Your task to perform on an android device: check google app version Image 0: 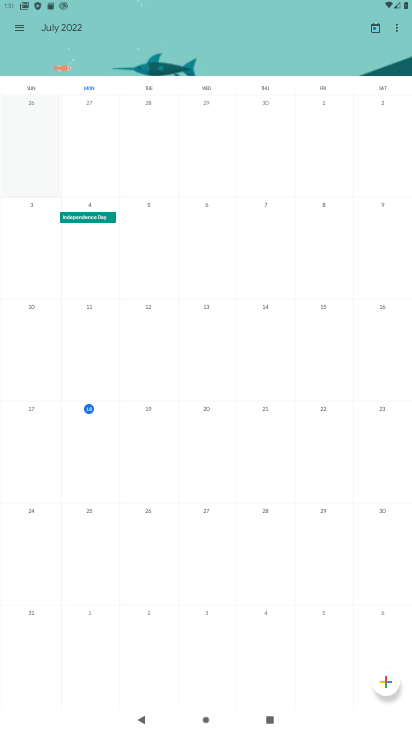
Step 0: press home button
Your task to perform on an android device: check google app version Image 1: 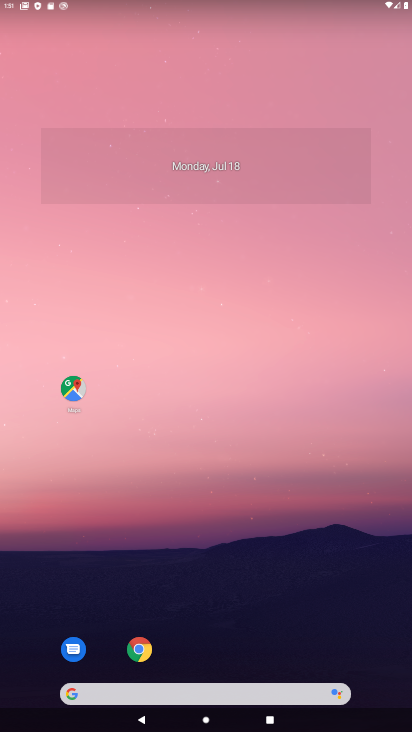
Step 1: drag from (196, 562) to (212, 74)
Your task to perform on an android device: check google app version Image 2: 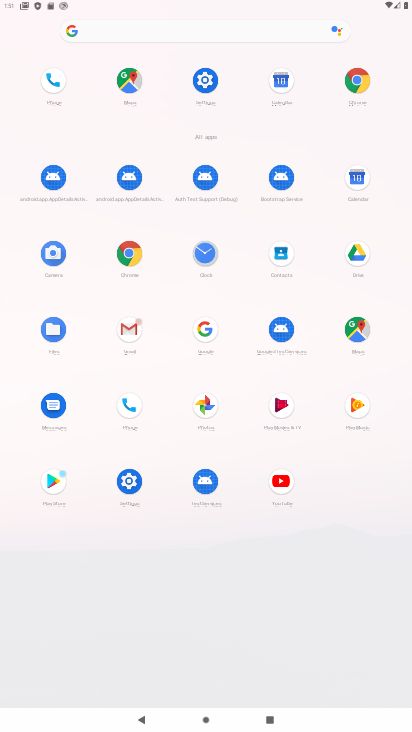
Step 2: click (200, 328)
Your task to perform on an android device: check google app version Image 3: 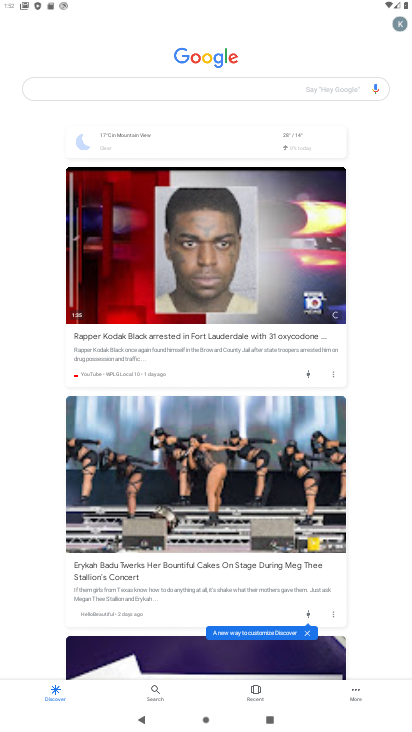
Step 3: click (396, 27)
Your task to perform on an android device: check google app version Image 4: 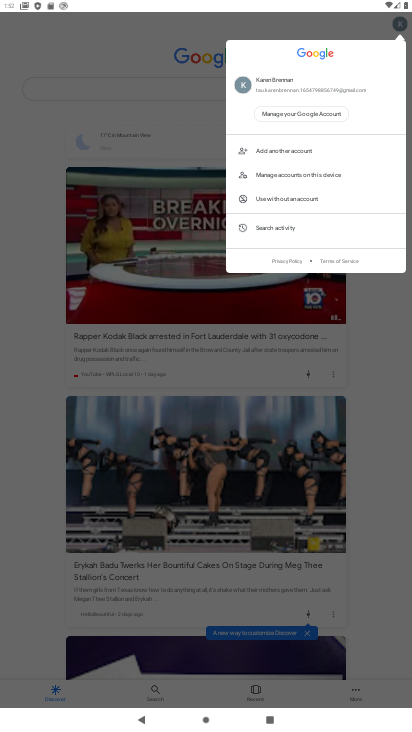
Step 4: press back button
Your task to perform on an android device: check google app version Image 5: 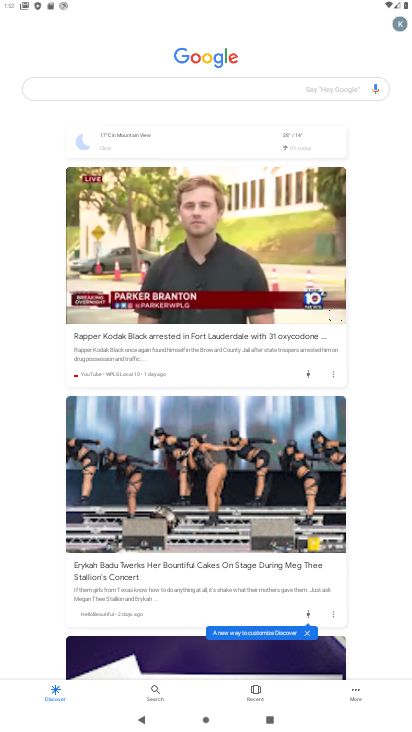
Step 5: click (362, 699)
Your task to perform on an android device: check google app version Image 6: 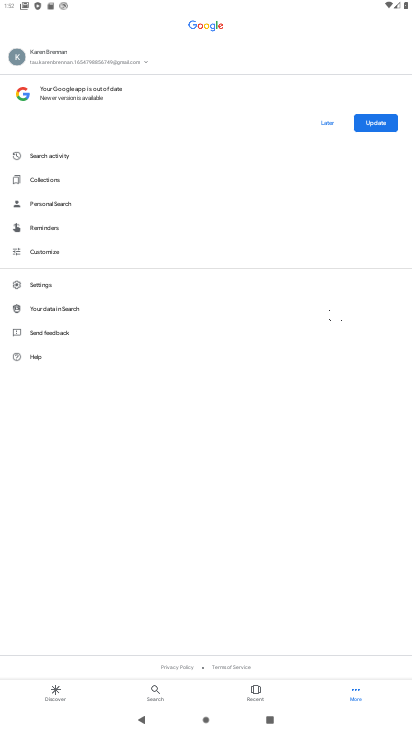
Step 6: click (37, 287)
Your task to perform on an android device: check google app version Image 7: 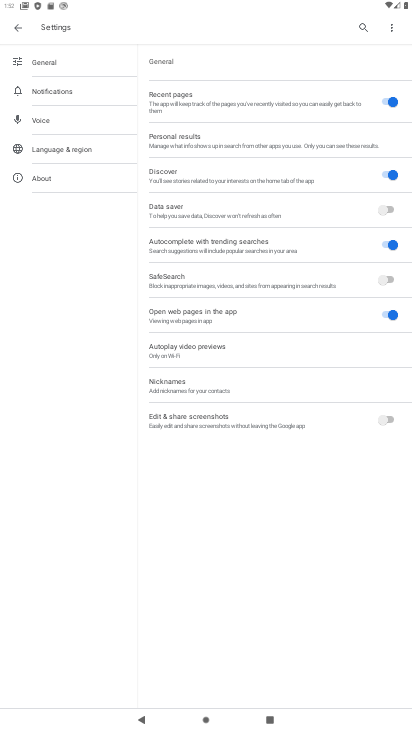
Step 7: click (82, 187)
Your task to perform on an android device: check google app version Image 8: 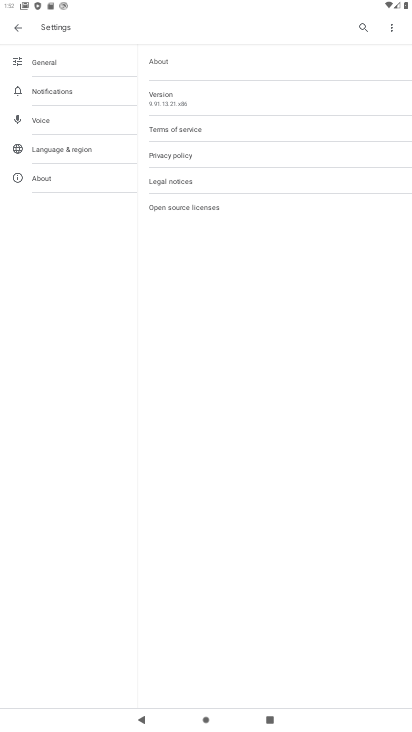
Step 8: click (79, 185)
Your task to perform on an android device: check google app version Image 9: 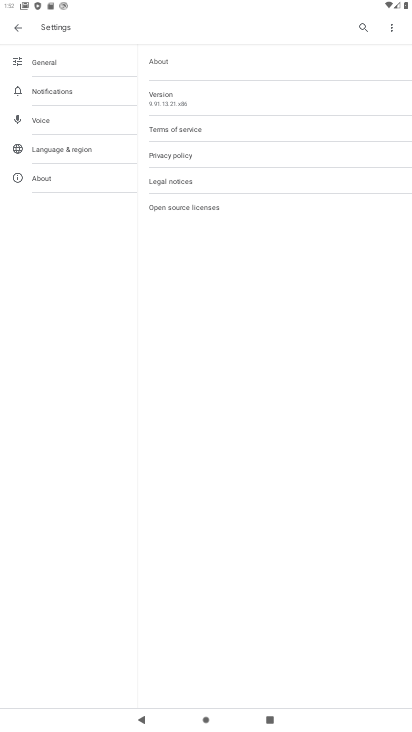
Step 9: click (190, 108)
Your task to perform on an android device: check google app version Image 10: 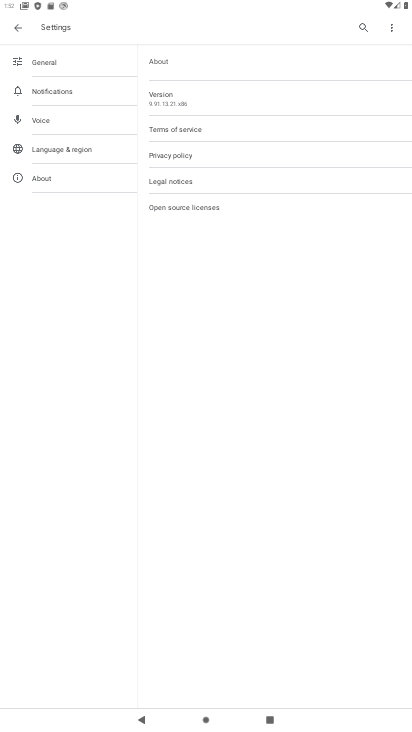
Step 10: task complete